Your task to perform on an android device: turn on improve location accuracy Image 0: 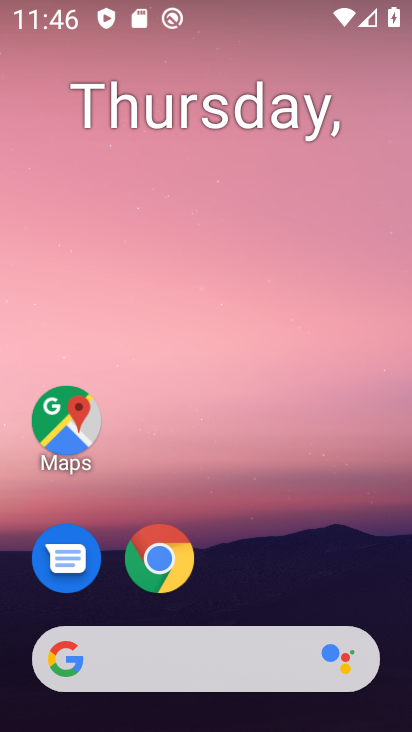
Step 0: drag from (345, 568) to (321, 138)
Your task to perform on an android device: turn on improve location accuracy Image 1: 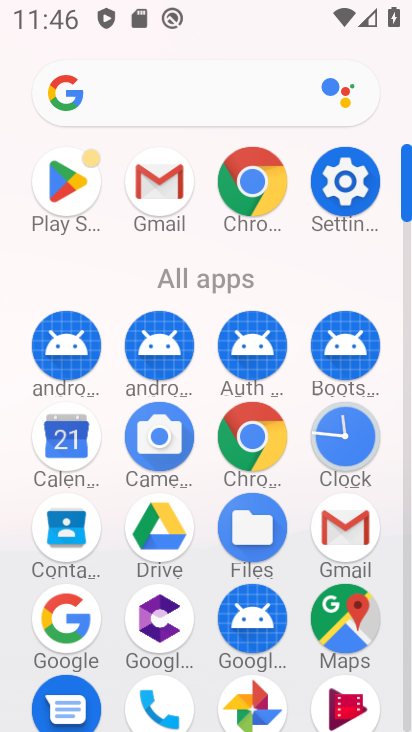
Step 1: click (354, 176)
Your task to perform on an android device: turn on improve location accuracy Image 2: 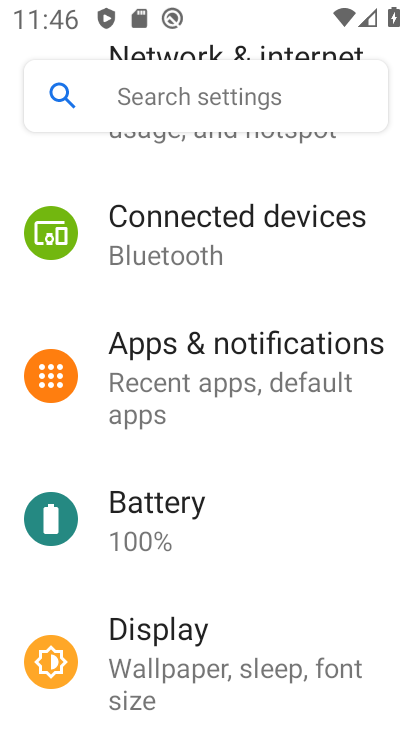
Step 2: drag from (360, 231) to (373, 325)
Your task to perform on an android device: turn on improve location accuracy Image 3: 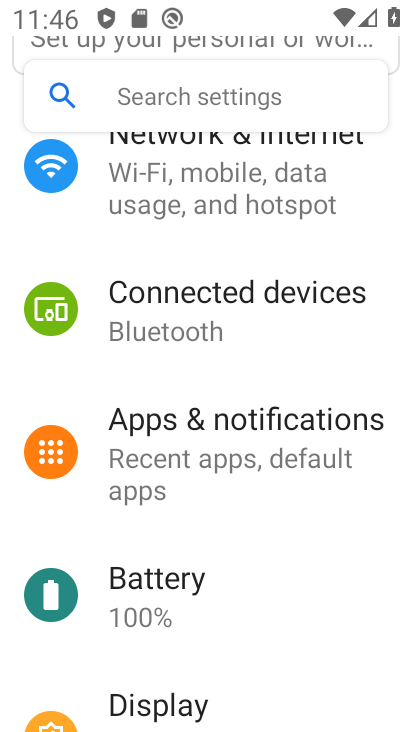
Step 3: drag from (365, 208) to (366, 363)
Your task to perform on an android device: turn on improve location accuracy Image 4: 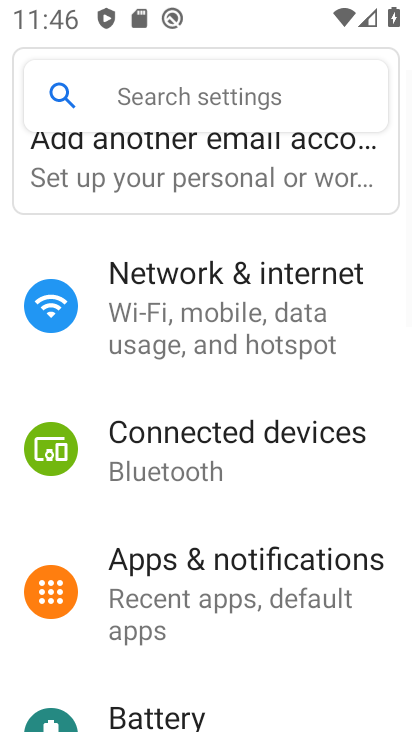
Step 4: drag from (360, 475) to (368, 395)
Your task to perform on an android device: turn on improve location accuracy Image 5: 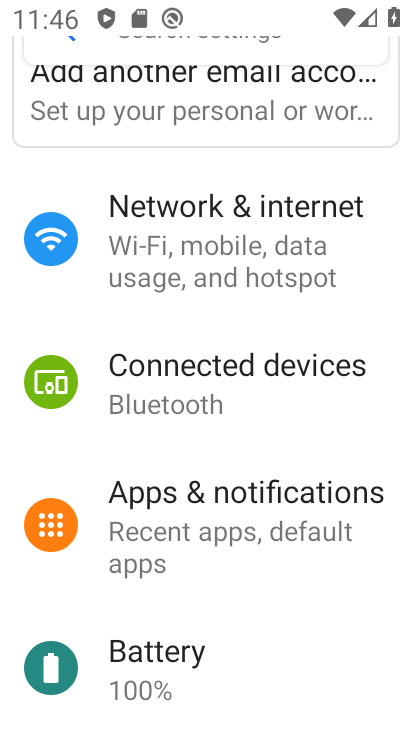
Step 5: drag from (336, 534) to (342, 424)
Your task to perform on an android device: turn on improve location accuracy Image 6: 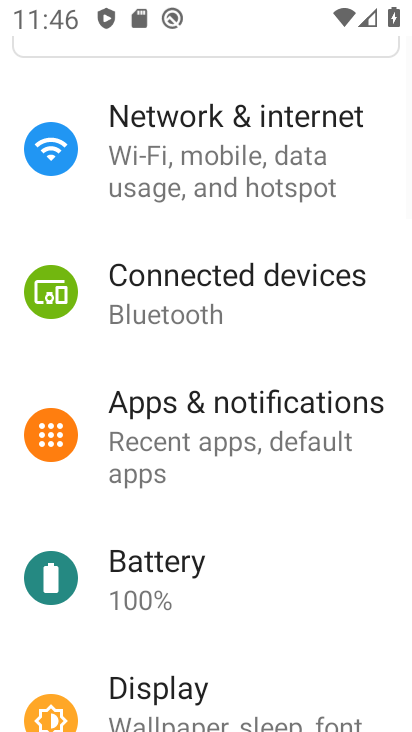
Step 6: drag from (316, 530) to (313, 443)
Your task to perform on an android device: turn on improve location accuracy Image 7: 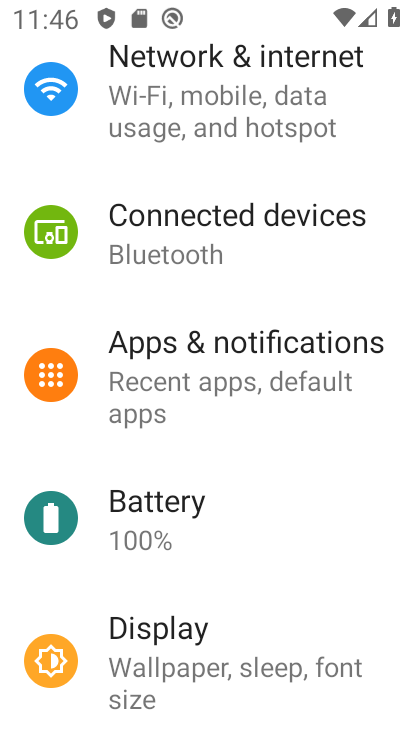
Step 7: drag from (297, 548) to (302, 463)
Your task to perform on an android device: turn on improve location accuracy Image 8: 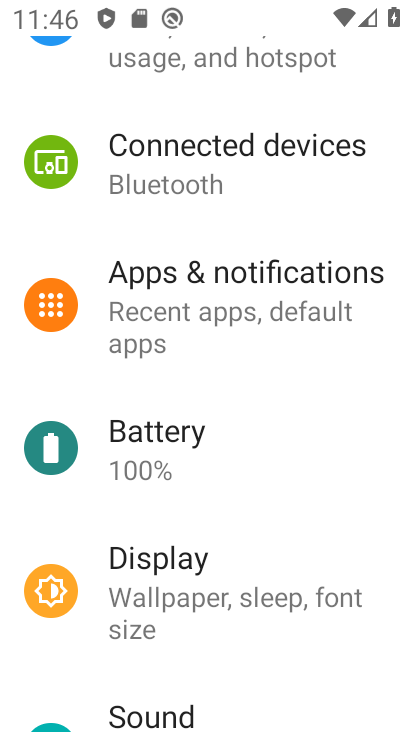
Step 8: drag from (320, 563) to (333, 452)
Your task to perform on an android device: turn on improve location accuracy Image 9: 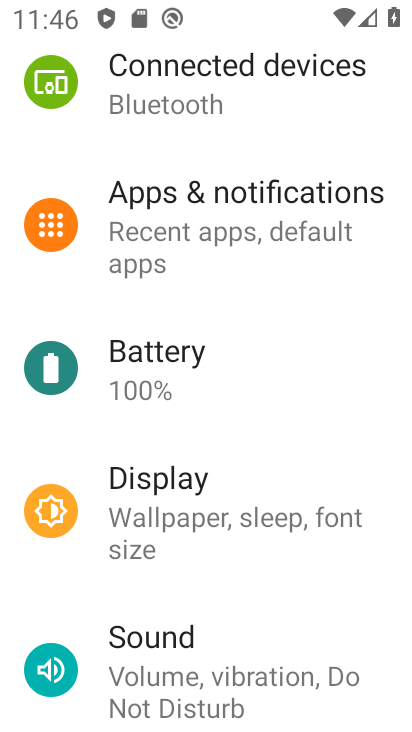
Step 9: drag from (341, 570) to (346, 464)
Your task to perform on an android device: turn on improve location accuracy Image 10: 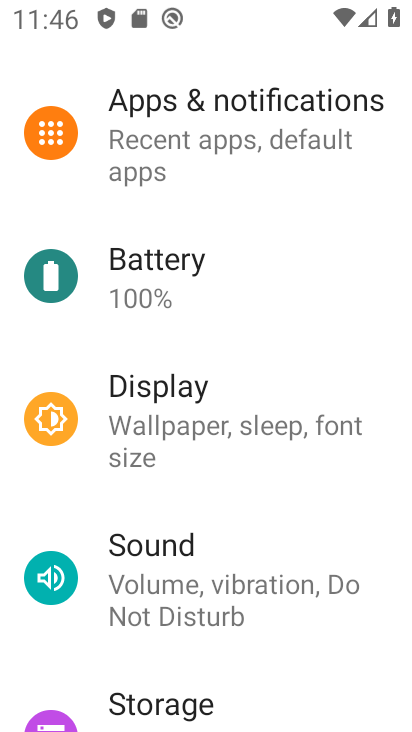
Step 10: drag from (330, 561) to (325, 463)
Your task to perform on an android device: turn on improve location accuracy Image 11: 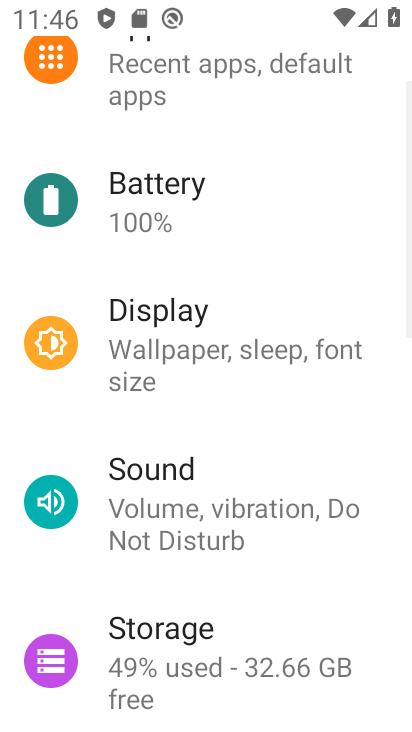
Step 11: drag from (307, 582) to (328, 413)
Your task to perform on an android device: turn on improve location accuracy Image 12: 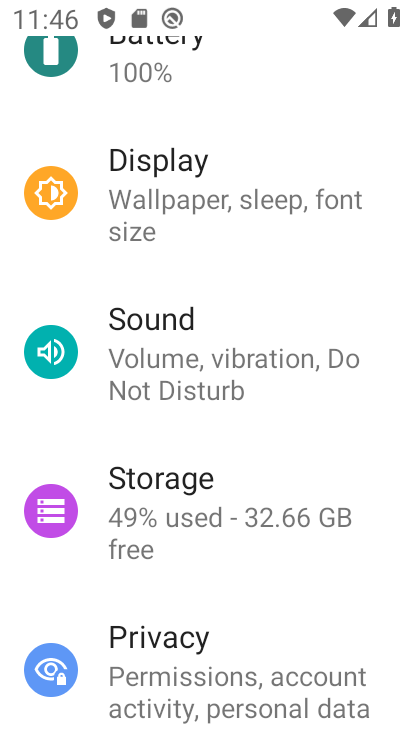
Step 12: drag from (336, 559) to (337, 442)
Your task to perform on an android device: turn on improve location accuracy Image 13: 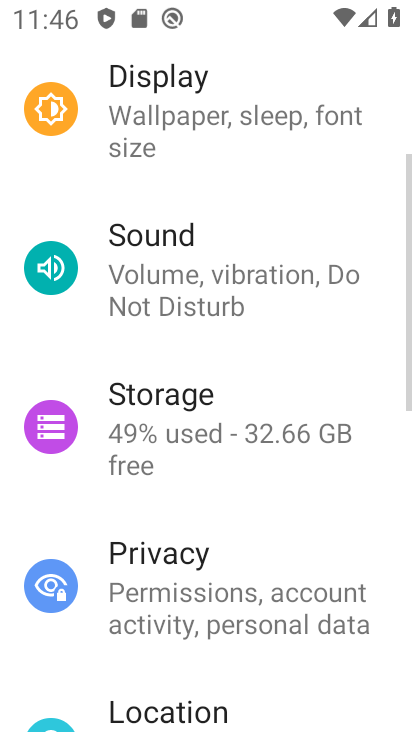
Step 13: drag from (340, 579) to (334, 441)
Your task to perform on an android device: turn on improve location accuracy Image 14: 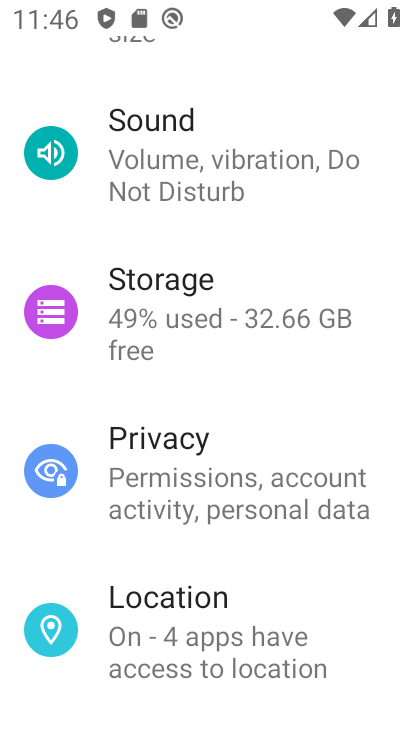
Step 14: drag from (337, 556) to (345, 378)
Your task to perform on an android device: turn on improve location accuracy Image 15: 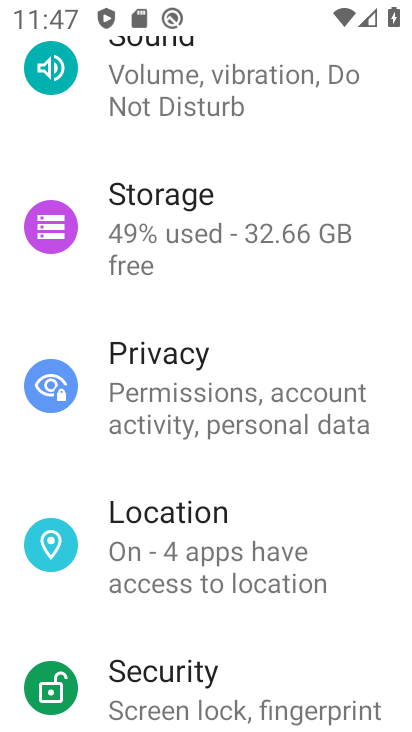
Step 15: click (318, 562)
Your task to perform on an android device: turn on improve location accuracy Image 16: 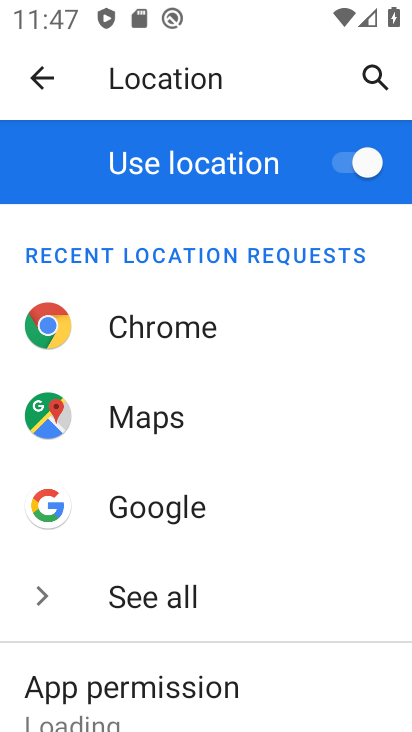
Step 16: drag from (338, 601) to (347, 509)
Your task to perform on an android device: turn on improve location accuracy Image 17: 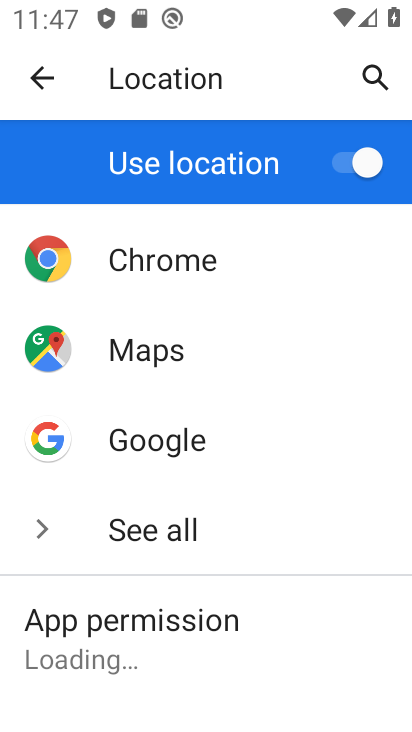
Step 17: drag from (348, 604) to (342, 480)
Your task to perform on an android device: turn on improve location accuracy Image 18: 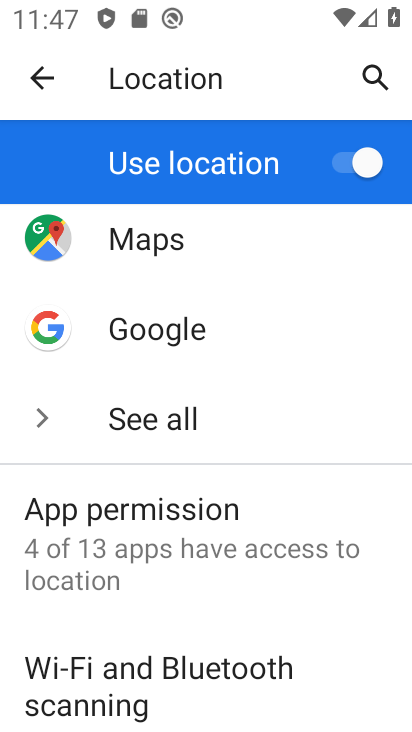
Step 18: drag from (335, 640) to (332, 464)
Your task to perform on an android device: turn on improve location accuracy Image 19: 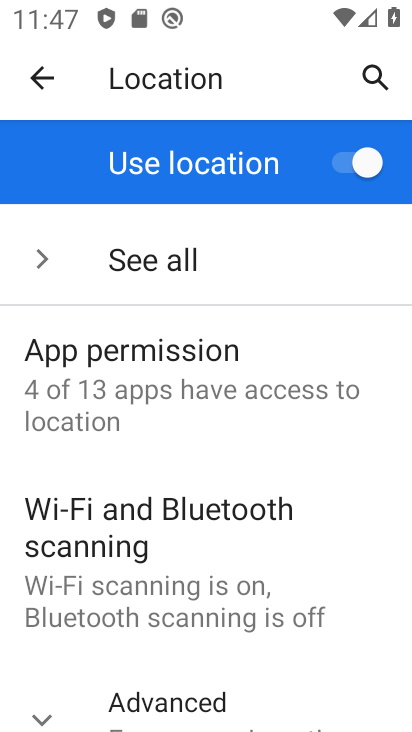
Step 19: drag from (338, 639) to (341, 478)
Your task to perform on an android device: turn on improve location accuracy Image 20: 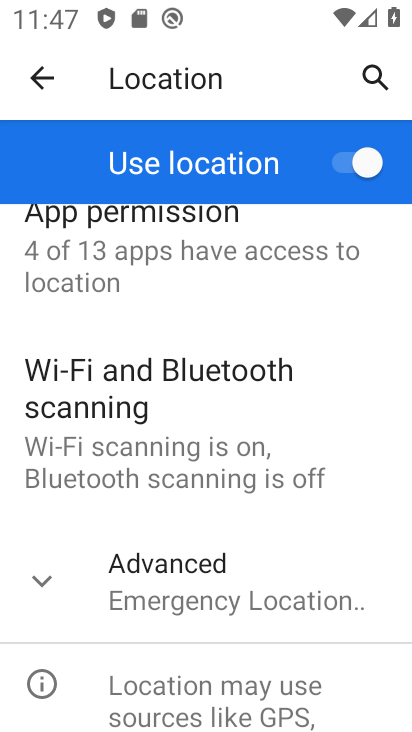
Step 20: click (304, 578)
Your task to perform on an android device: turn on improve location accuracy Image 21: 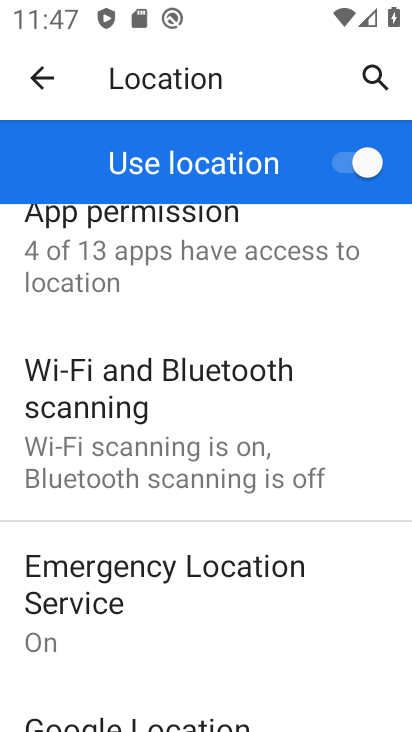
Step 21: drag from (308, 665) to (333, 532)
Your task to perform on an android device: turn on improve location accuracy Image 22: 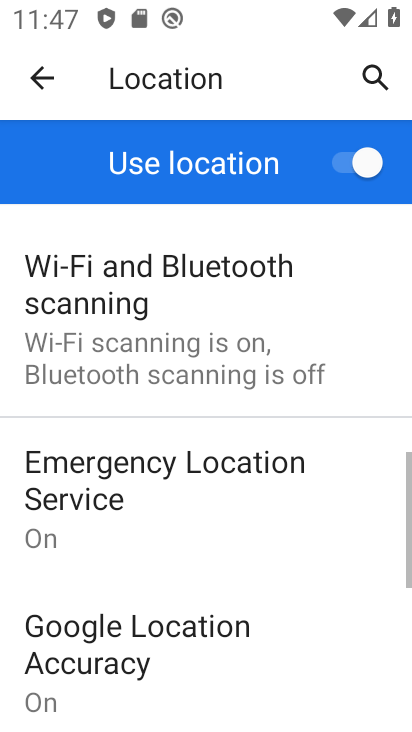
Step 22: drag from (330, 670) to (339, 556)
Your task to perform on an android device: turn on improve location accuracy Image 23: 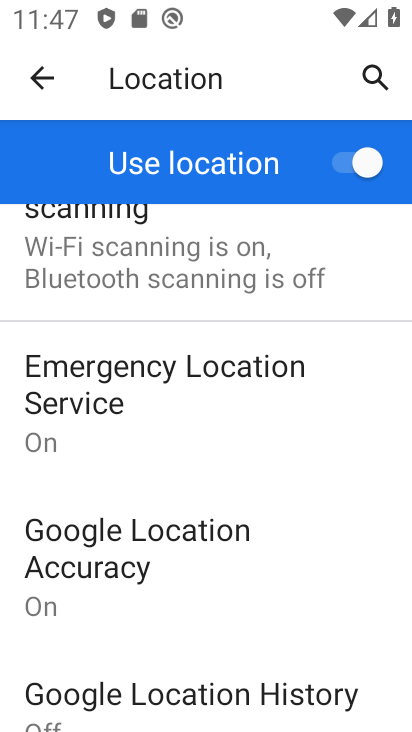
Step 23: click (204, 588)
Your task to perform on an android device: turn on improve location accuracy Image 24: 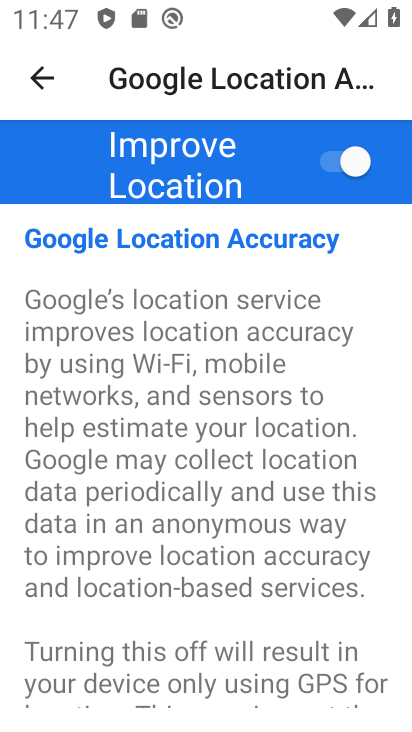
Step 24: task complete